Your task to perform on an android device: turn on improve location accuracy Image 0: 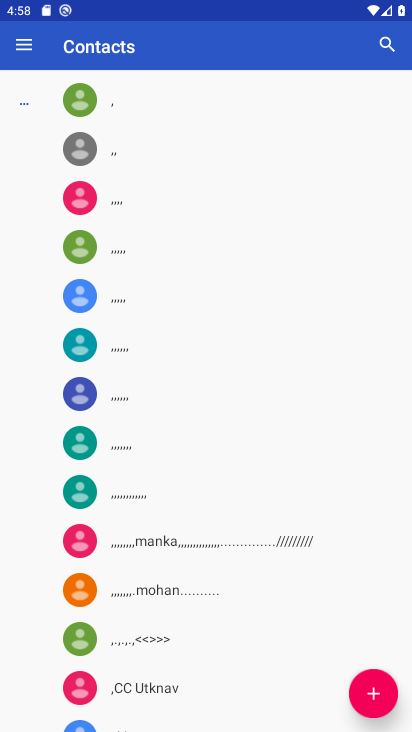
Step 0: press back button
Your task to perform on an android device: turn on improve location accuracy Image 1: 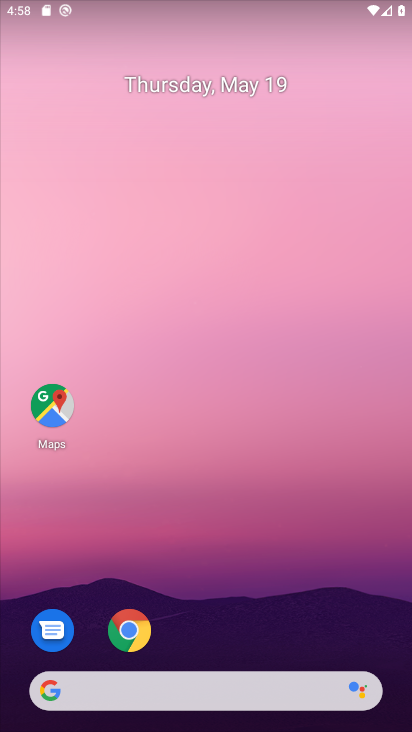
Step 1: drag from (307, 603) to (253, 9)
Your task to perform on an android device: turn on improve location accuracy Image 2: 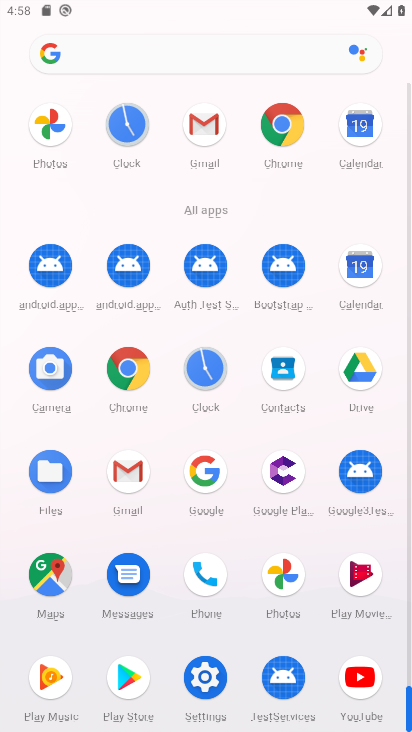
Step 2: drag from (8, 553) to (0, 167)
Your task to perform on an android device: turn on improve location accuracy Image 3: 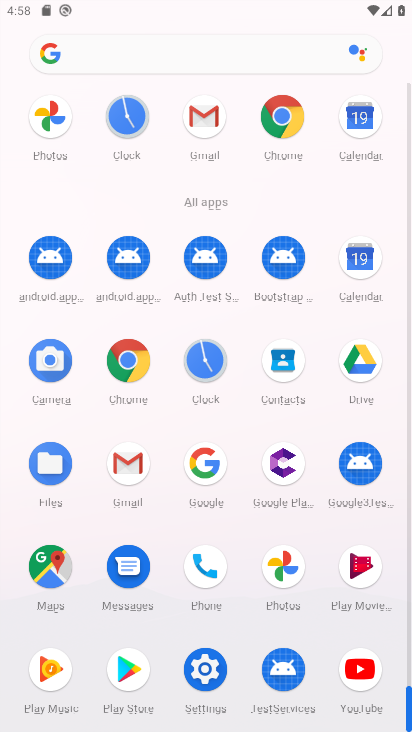
Step 3: click (201, 662)
Your task to perform on an android device: turn on improve location accuracy Image 4: 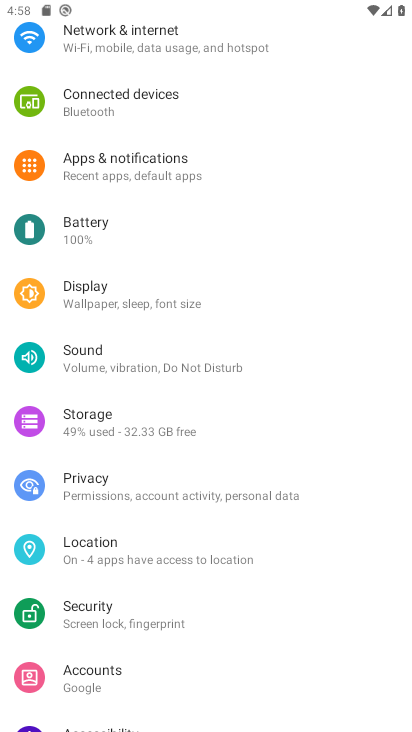
Step 4: click (112, 550)
Your task to perform on an android device: turn on improve location accuracy Image 5: 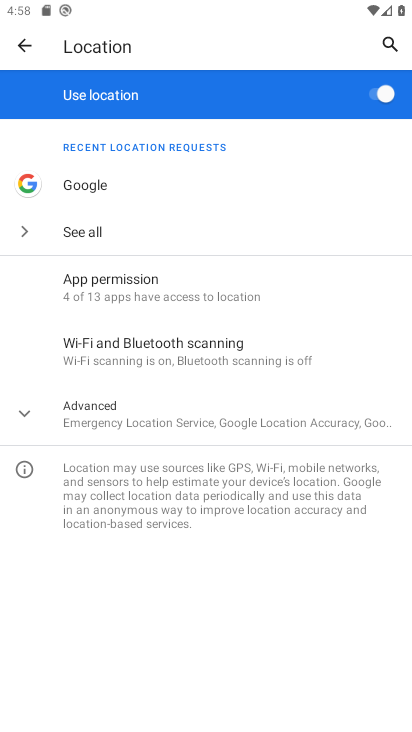
Step 5: click (82, 412)
Your task to perform on an android device: turn on improve location accuracy Image 6: 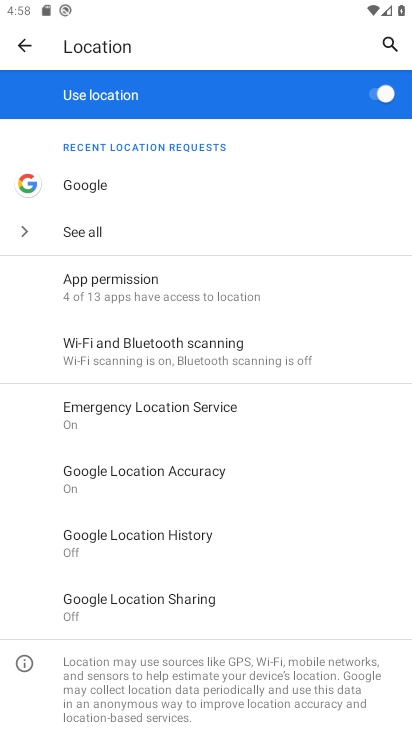
Step 6: click (175, 472)
Your task to perform on an android device: turn on improve location accuracy Image 7: 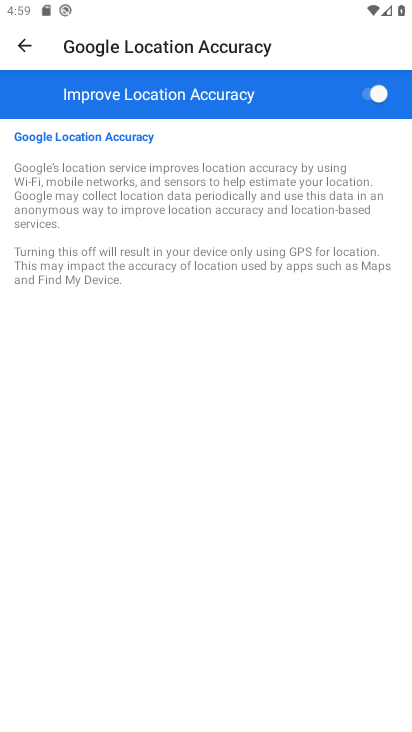
Step 7: task complete